Your task to perform on an android device: Open Amazon Image 0: 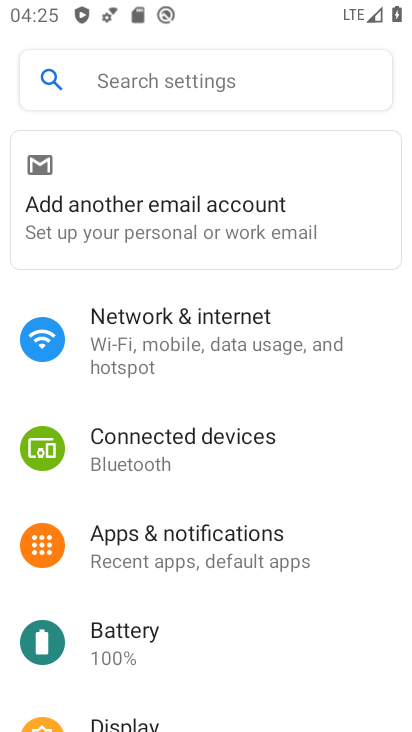
Step 0: press home button
Your task to perform on an android device: Open Amazon Image 1: 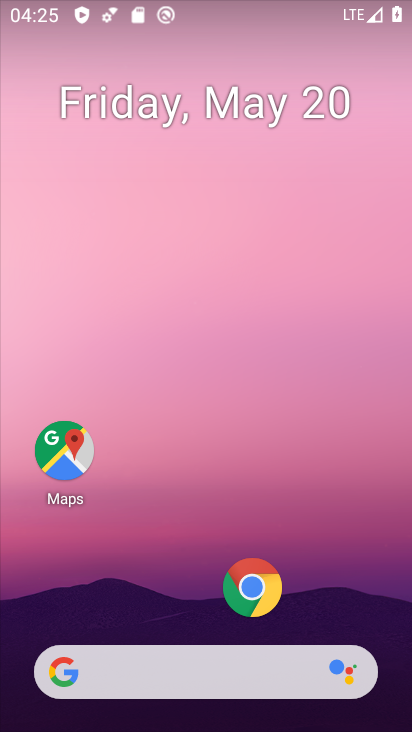
Step 1: click (252, 596)
Your task to perform on an android device: Open Amazon Image 2: 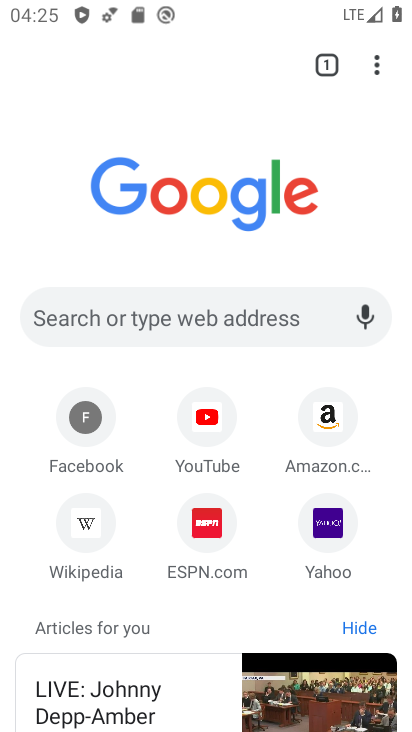
Step 2: click (335, 418)
Your task to perform on an android device: Open Amazon Image 3: 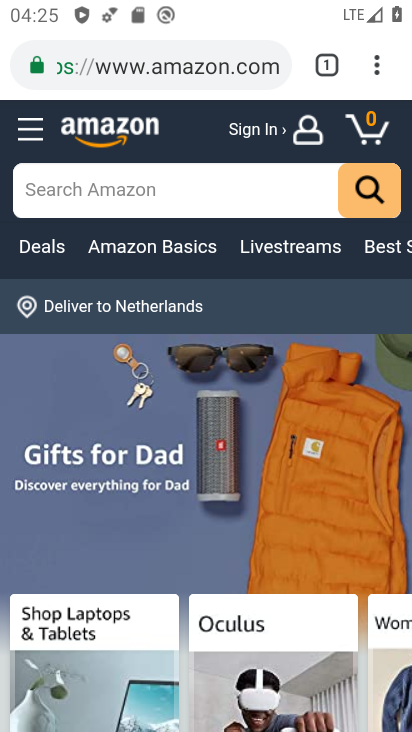
Step 3: task complete